Your task to perform on an android device: Check out the best rated books on Goodreads. Image 0: 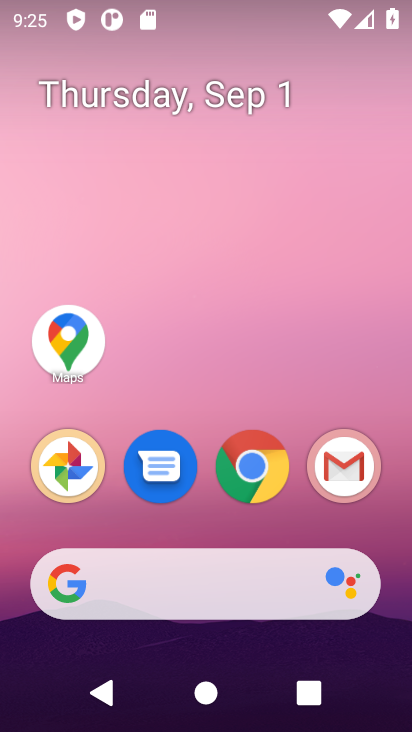
Step 0: press home button
Your task to perform on an android device: Check out the best rated books on Goodreads. Image 1: 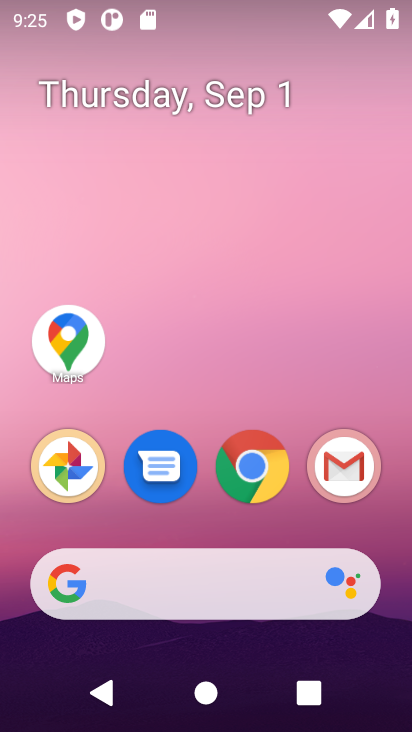
Step 1: drag from (366, 350) to (368, 91)
Your task to perform on an android device: Check out the best rated books on Goodreads. Image 2: 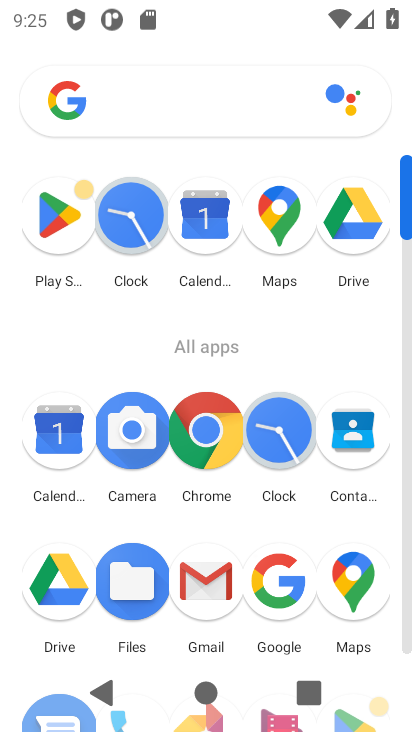
Step 2: click (214, 425)
Your task to perform on an android device: Check out the best rated books on Goodreads. Image 3: 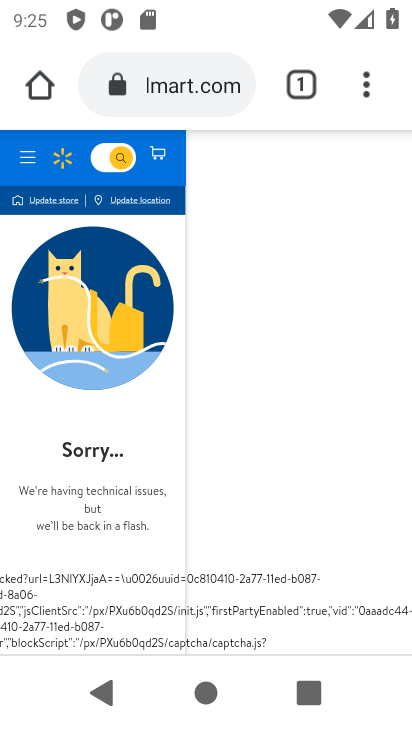
Step 3: click (192, 84)
Your task to perform on an android device: Check out the best rated books on Goodreads. Image 4: 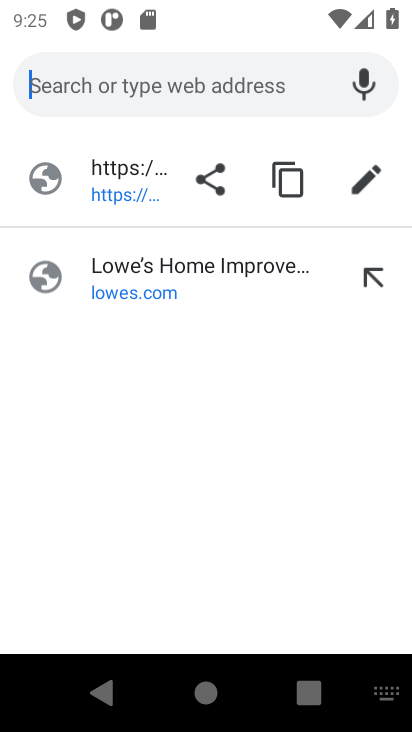
Step 4: press enter
Your task to perform on an android device: Check out the best rated books on Goodreads. Image 5: 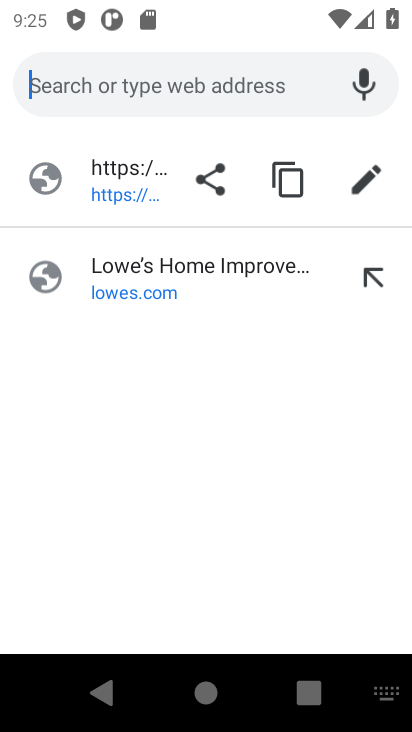
Step 5: type "goodreads"
Your task to perform on an android device: Check out the best rated books on Goodreads. Image 6: 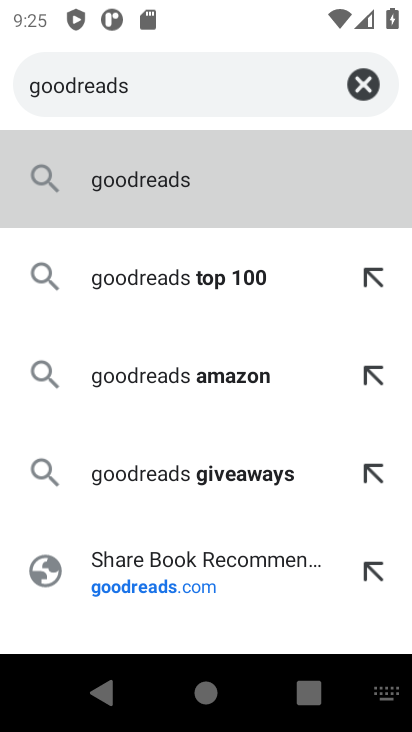
Step 6: click (187, 176)
Your task to perform on an android device: Check out the best rated books on Goodreads. Image 7: 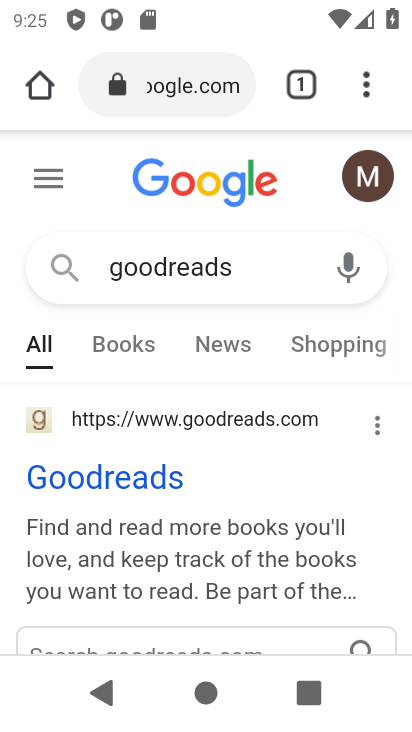
Step 7: click (151, 481)
Your task to perform on an android device: Check out the best rated books on Goodreads. Image 8: 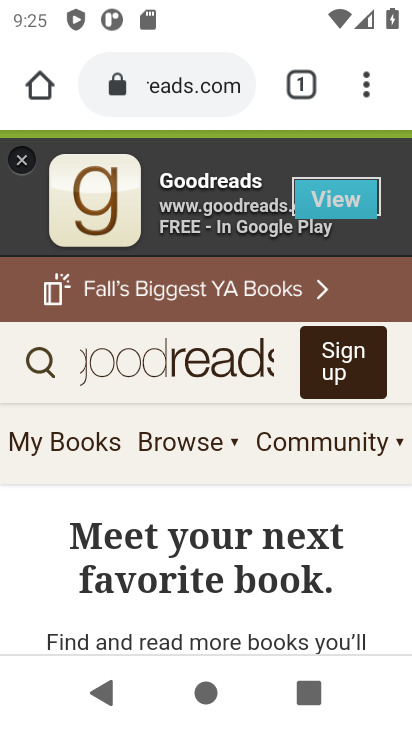
Step 8: click (41, 355)
Your task to perform on an android device: Check out the best rated books on Goodreads. Image 9: 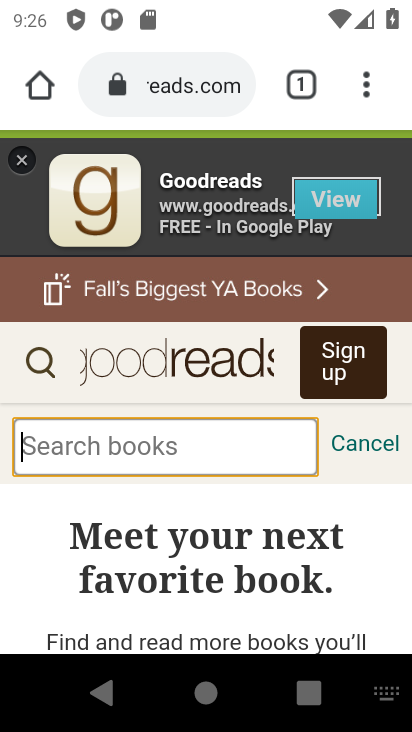
Step 9: press enter
Your task to perform on an android device: Check out the best rated books on Goodreads. Image 10: 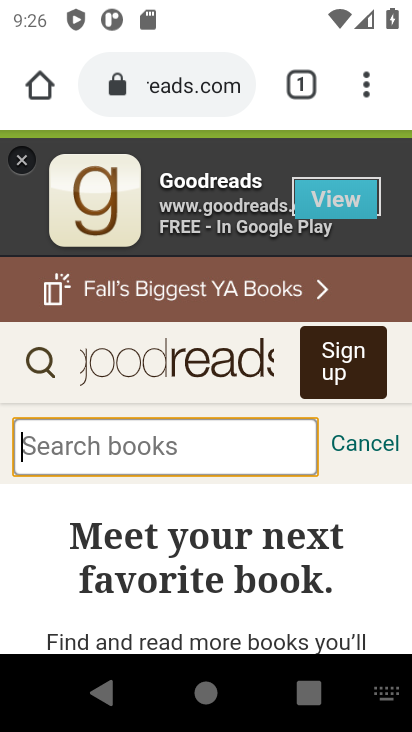
Step 10: type "best rated books "
Your task to perform on an android device: Check out the best rated books on Goodreads. Image 11: 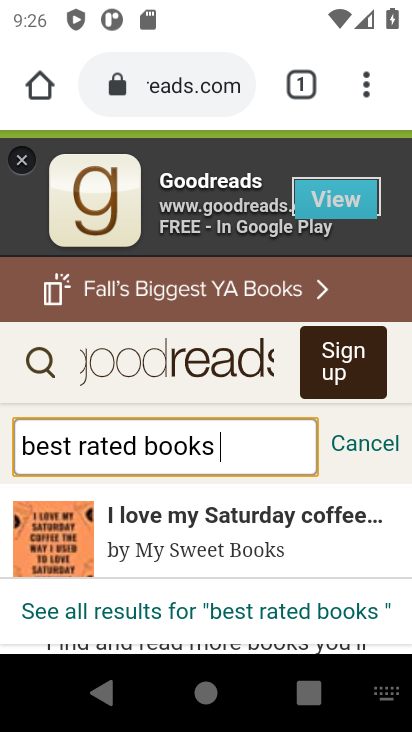
Step 11: task complete